Your task to perform on an android device: Open settings on Google Maps Image 0: 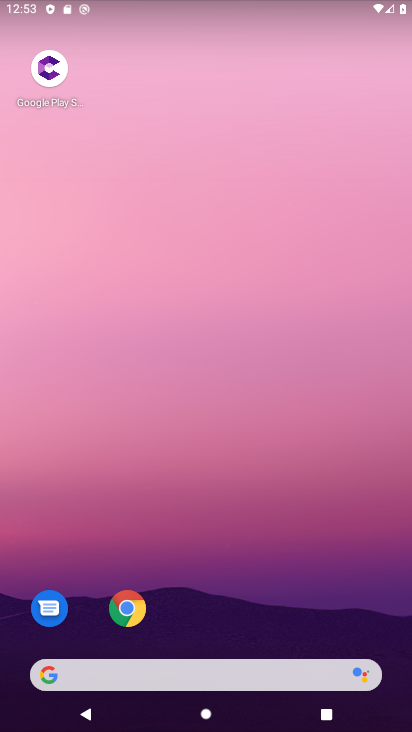
Step 0: drag from (223, 600) to (240, 0)
Your task to perform on an android device: Open settings on Google Maps Image 1: 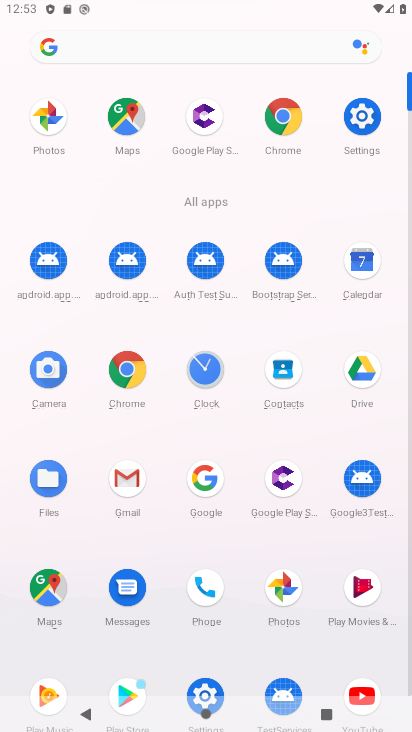
Step 1: click (114, 128)
Your task to perform on an android device: Open settings on Google Maps Image 2: 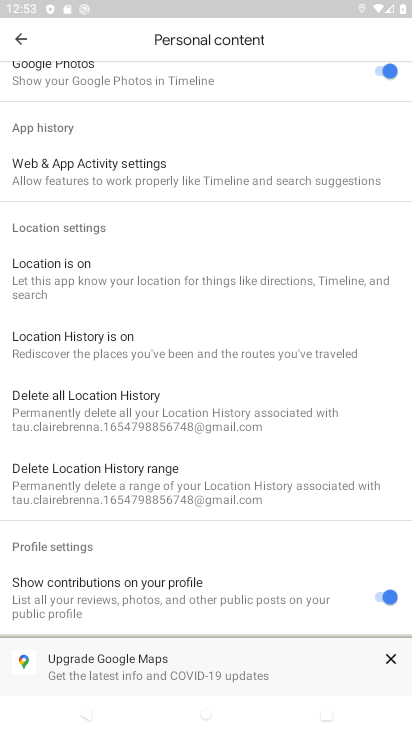
Step 2: click (19, 42)
Your task to perform on an android device: Open settings on Google Maps Image 3: 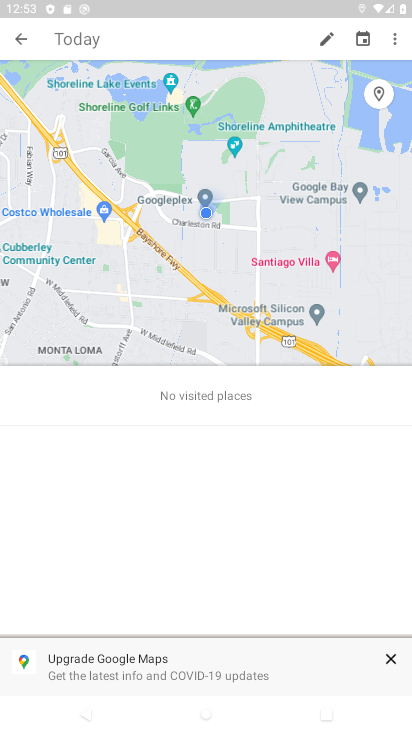
Step 3: click (19, 34)
Your task to perform on an android device: Open settings on Google Maps Image 4: 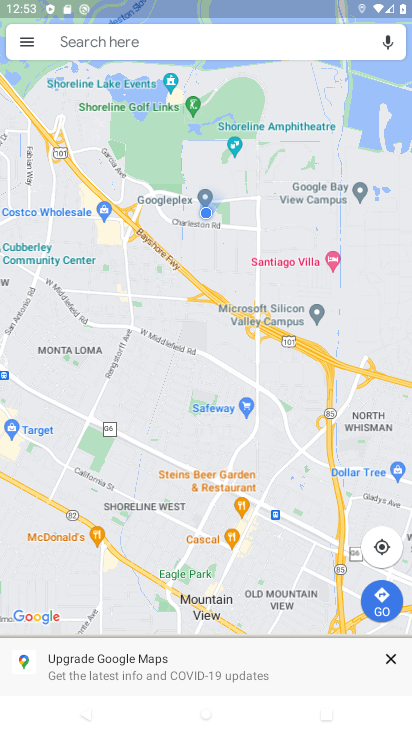
Step 4: click (35, 26)
Your task to perform on an android device: Open settings on Google Maps Image 5: 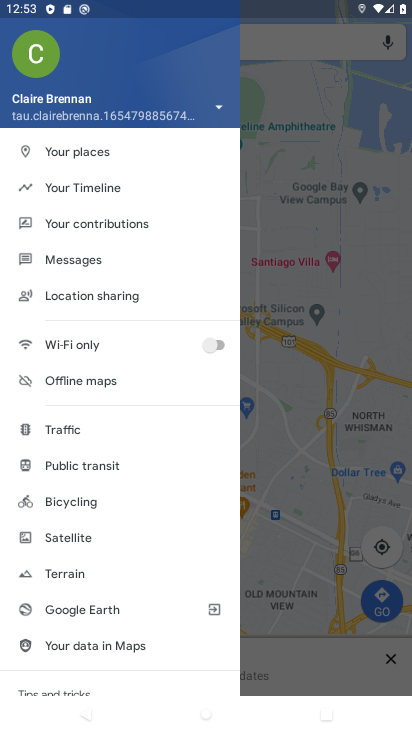
Step 5: drag from (84, 622) to (147, 221)
Your task to perform on an android device: Open settings on Google Maps Image 6: 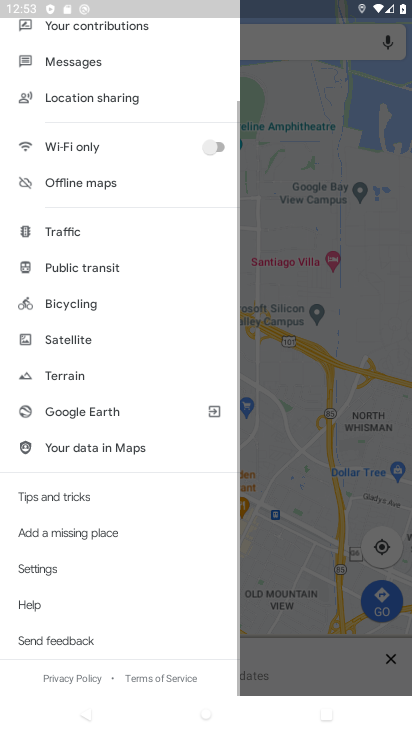
Step 6: click (36, 572)
Your task to perform on an android device: Open settings on Google Maps Image 7: 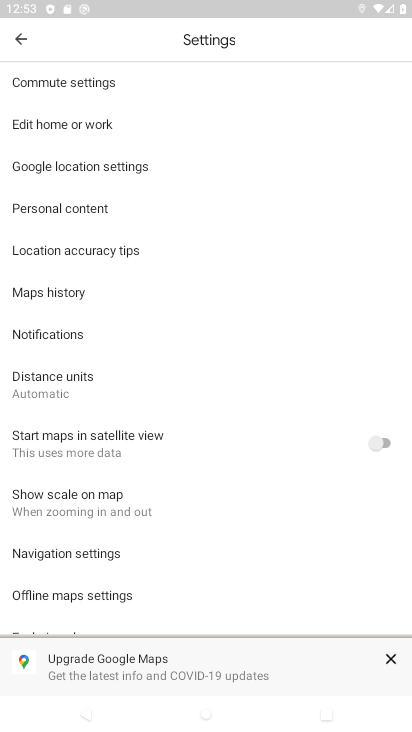
Step 7: task complete